Your task to perform on an android device: Open Reddit.com Image 0: 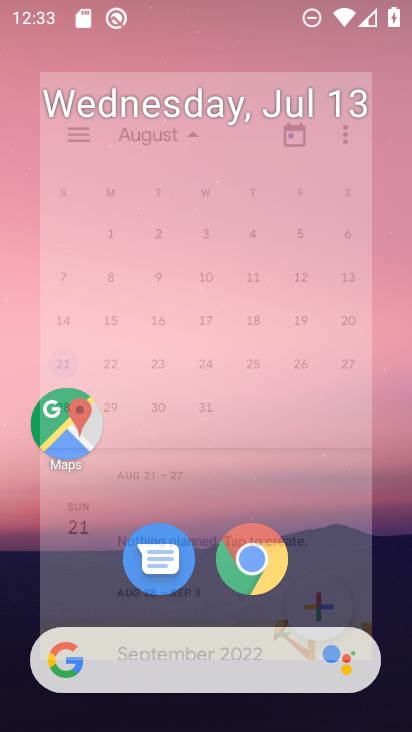
Step 0: drag from (312, 548) to (303, 192)
Your task to perform on an android device: Open Reddit.com Image 1: 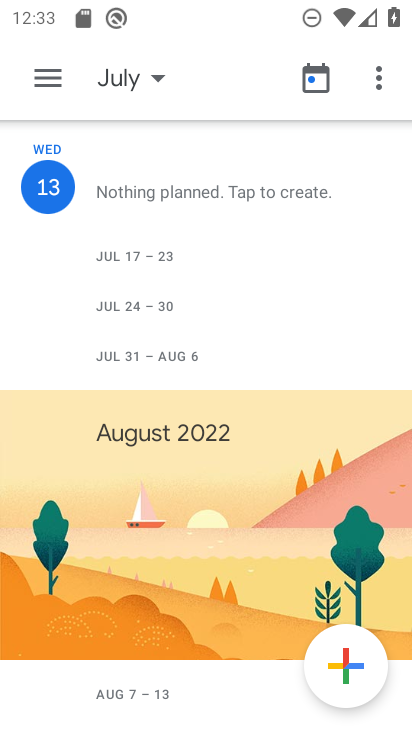
Step 1: press home button
Your task to perform on an android device: Open Reddit.com Image 2: 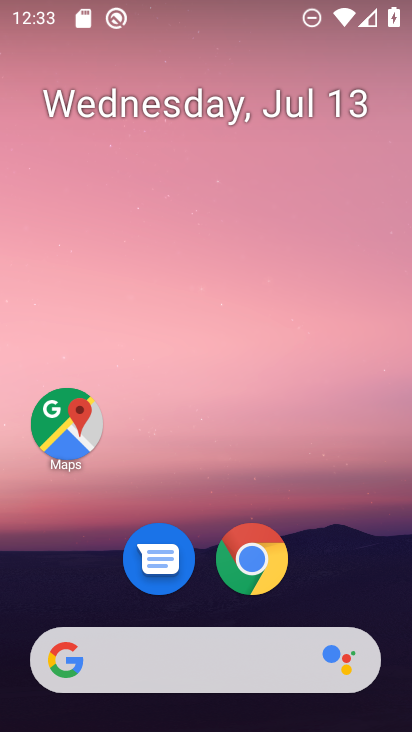
Step 2: drag from (222, 663) to (271, 219)
Your task to perform on an android device: Open Reddit.com Image 3: 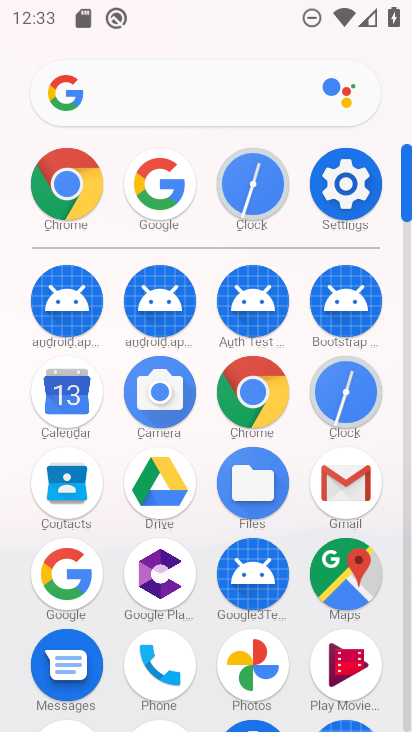
Step 3: click (254, 404)
Your task to perform on an android device: Open Reddit.com Image 4: 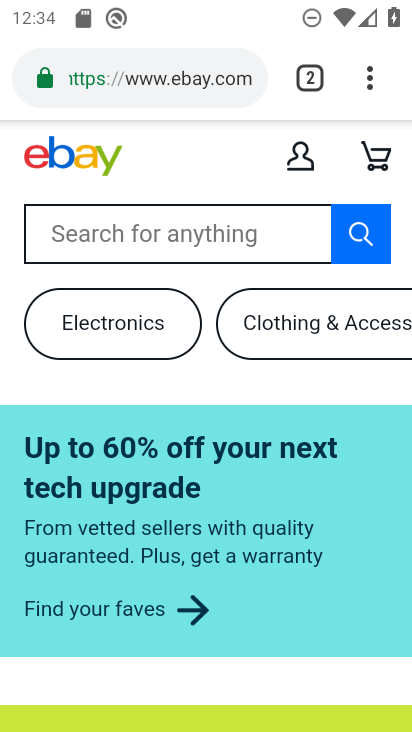
Step 4: click (138, 81)
Your task to perform on an android device: Open Reddit.com Image 5: 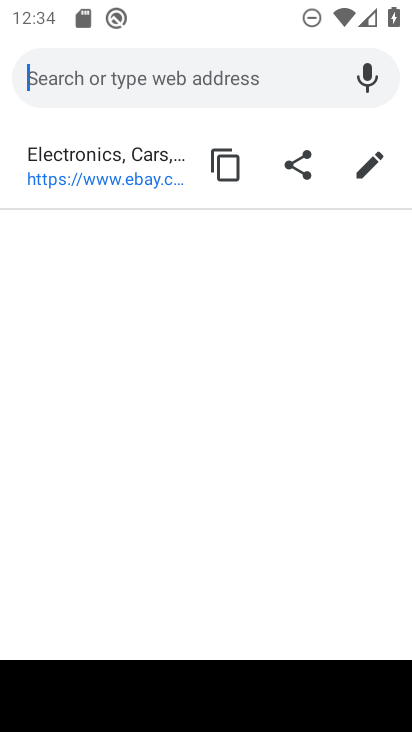
Step 5: type "reddit"
Your task to perform on an android device: Open Reddit.com Image 6: 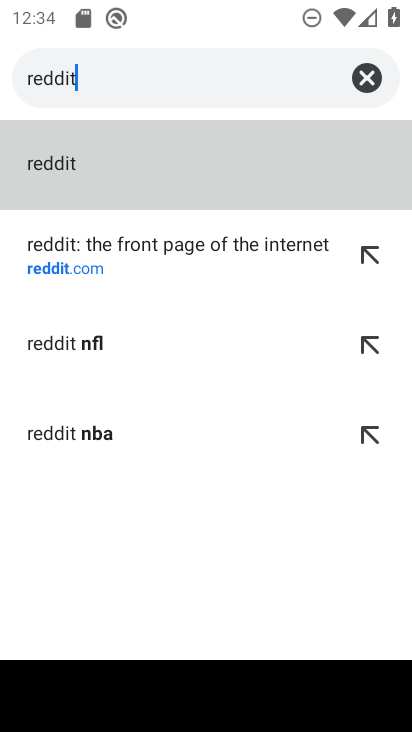
Step 6: click (151, 266)
Your task to perform on an android device: Open Reddit.com Image 7: 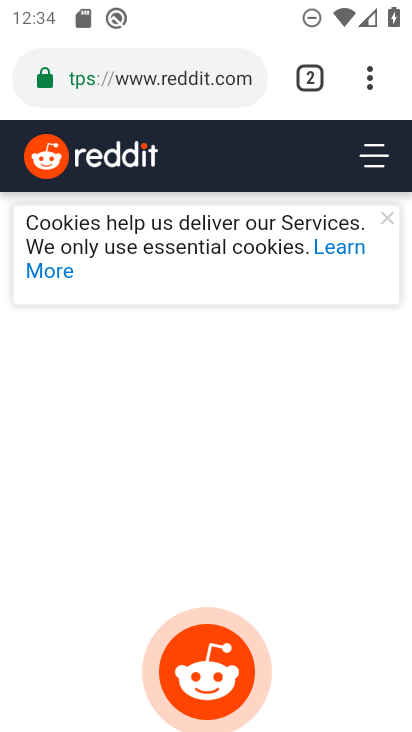
Step 7: task complete